Your task to perform on an android device: What's the latest news in astrophysics? Image 0: 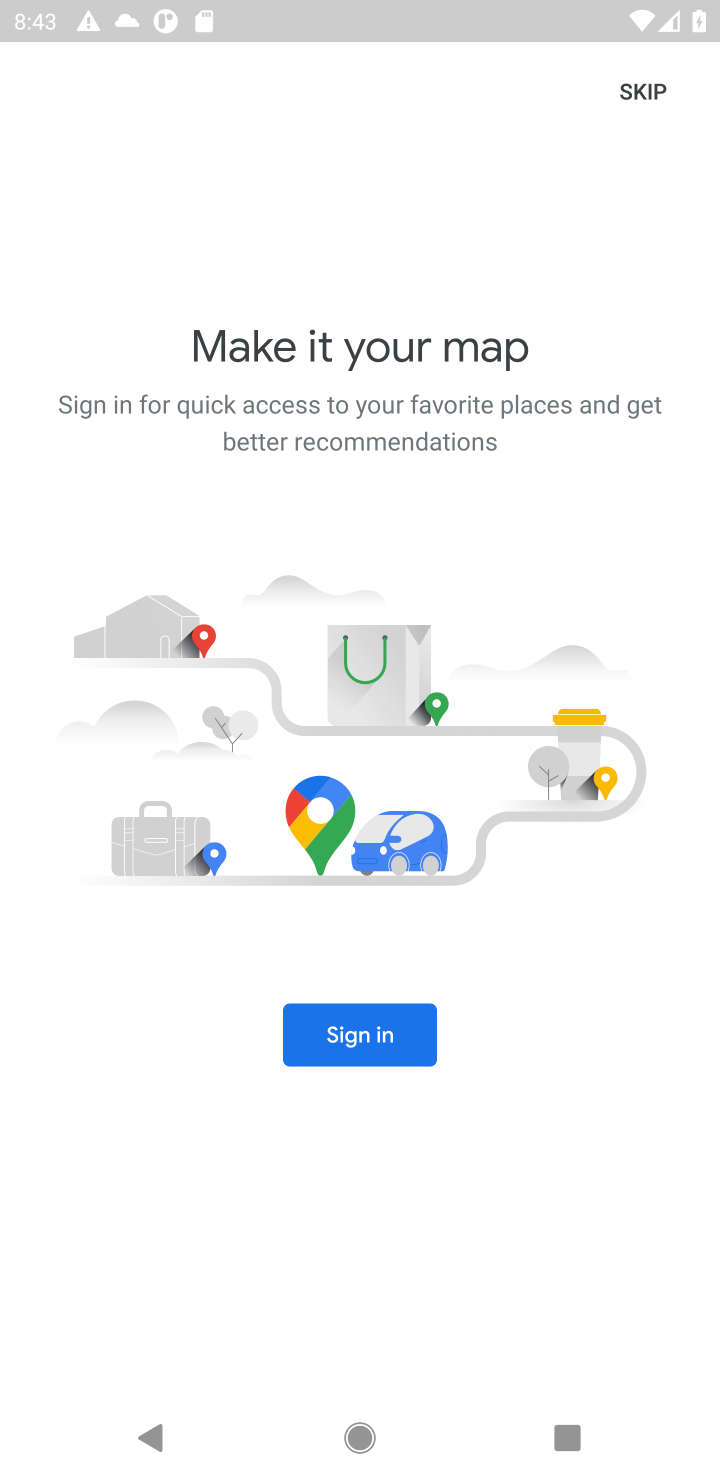
Step 0: press home button
Your task to perform on an android device: What's the latest news in astrophysics? Image 1: 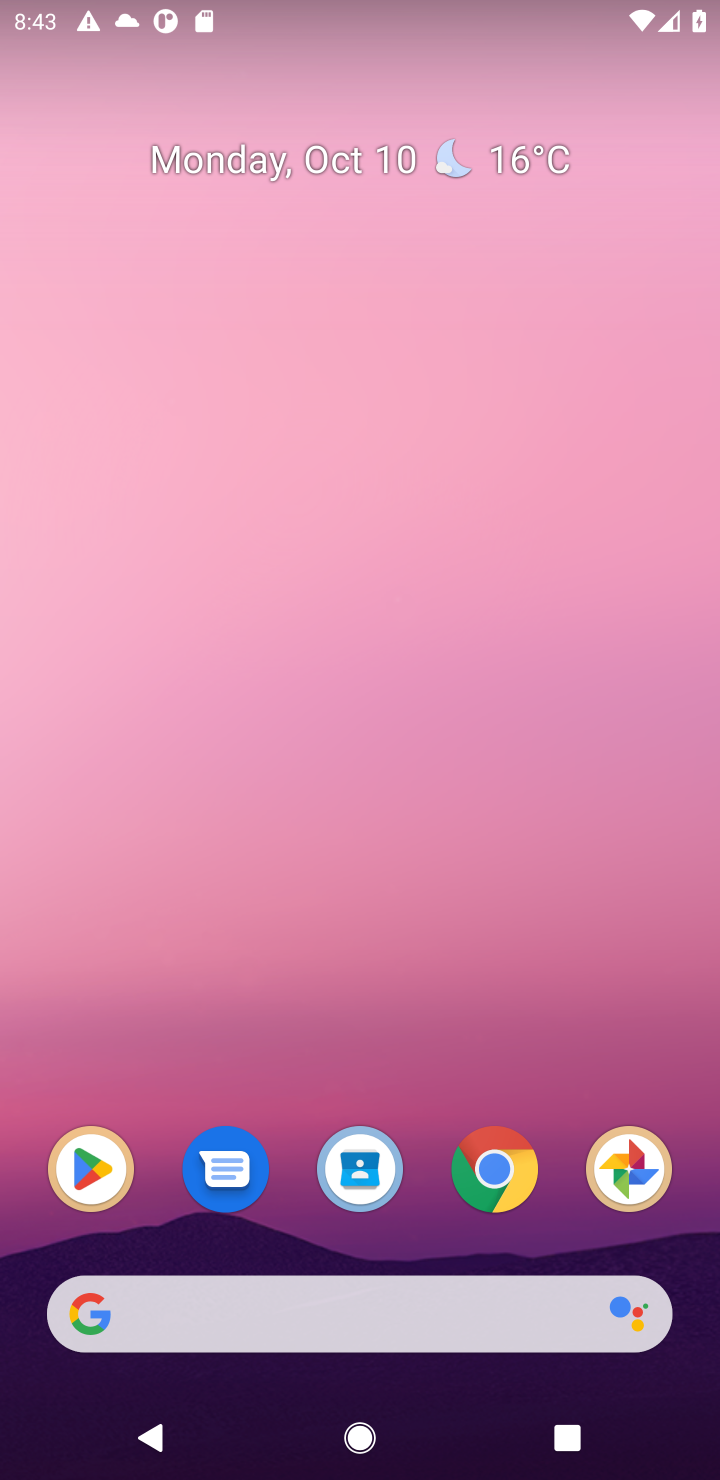
Step 1: click (489, 1205)
Your task to perform on an android device: What's the latest news in astrophysics? Image 2: 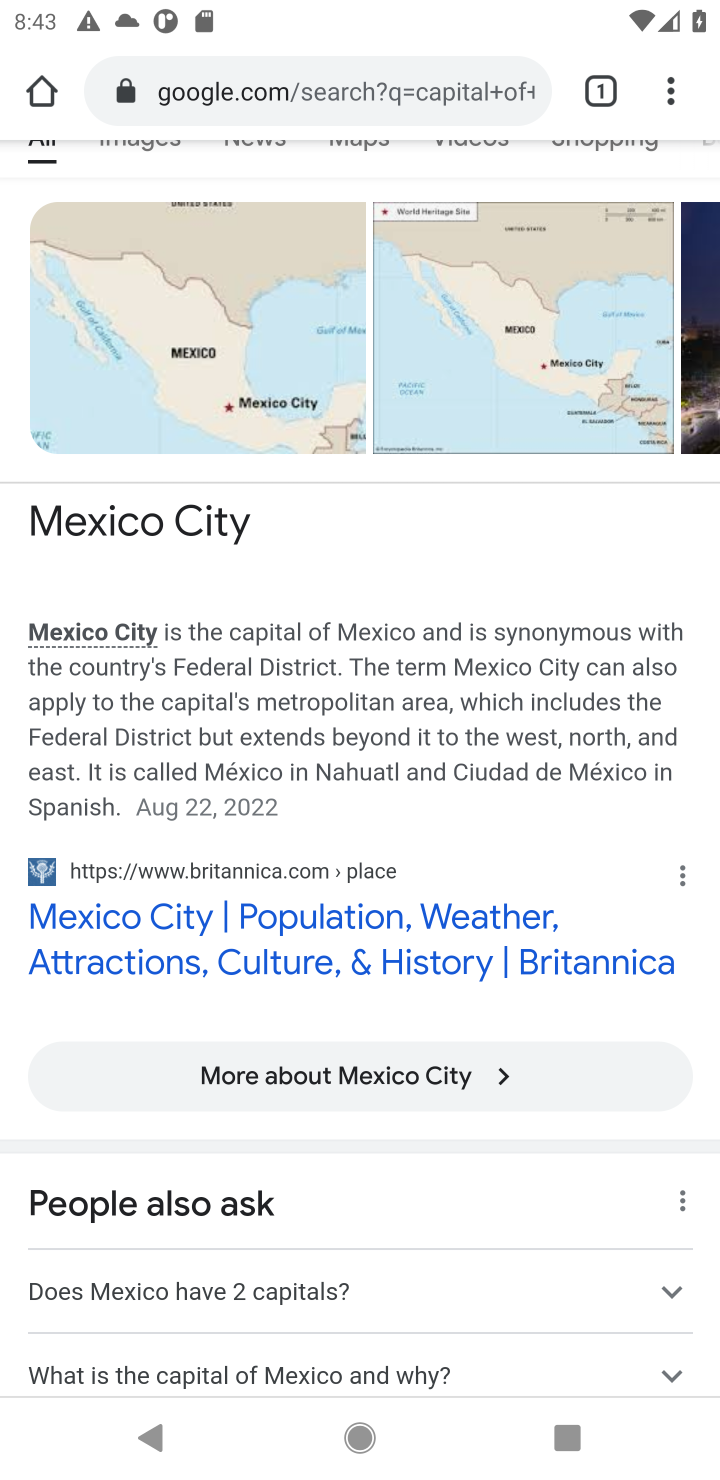
Step 2: click (312, 91)
Your task to perform on an android device: What's the latest news in astrophysics? Image 3: 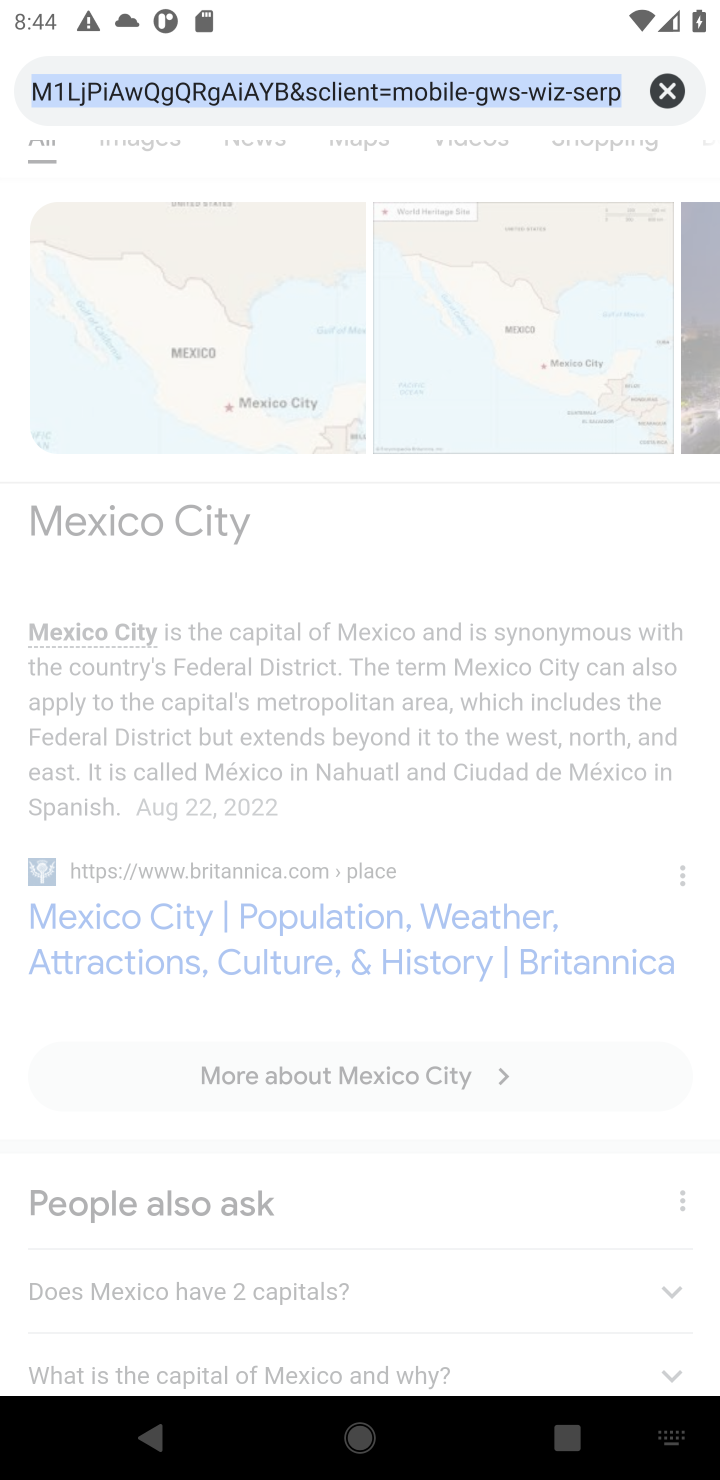
Step 3: type "astrophysics"
Your task to perform on an android device: What's the latest news in astrophysics? Image 4: 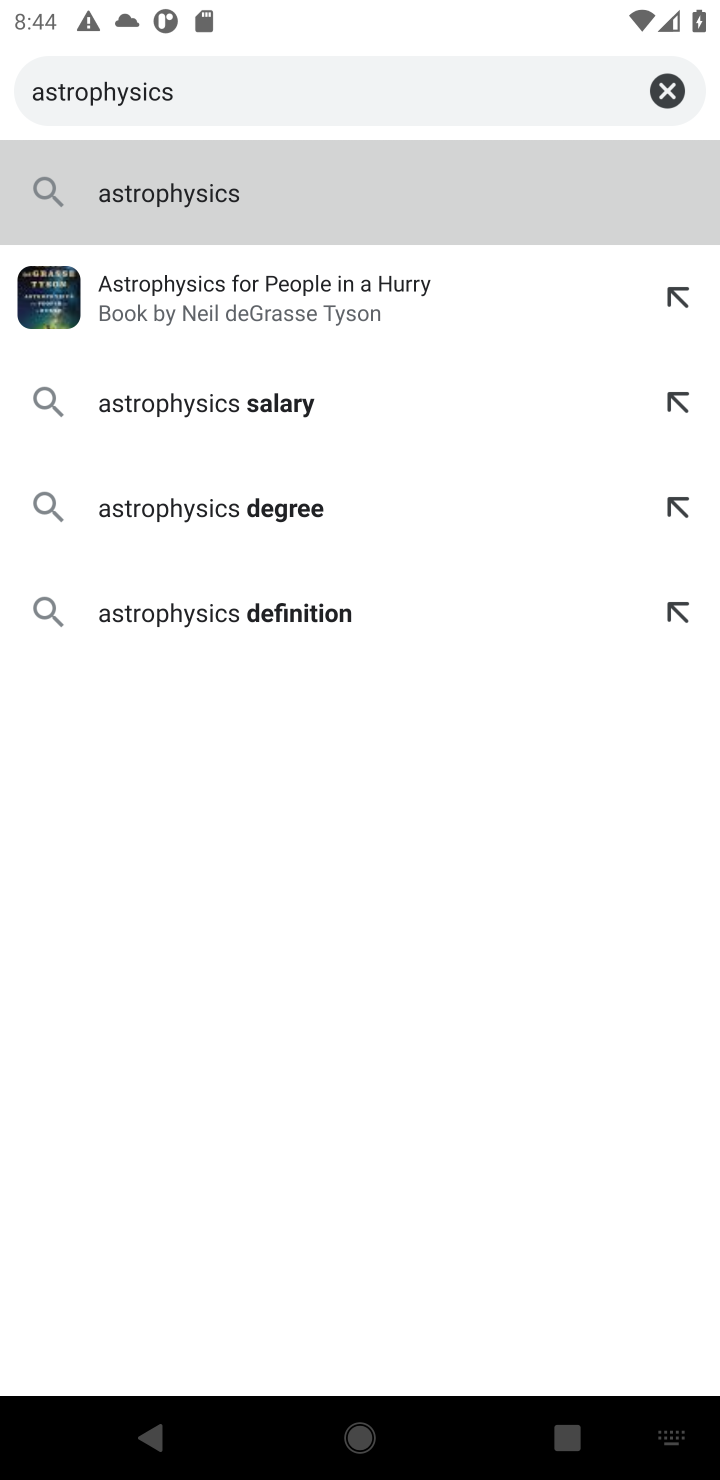
Step 4: click (275, 199)
Your task to perform on an android device: What's the latest news in astrophysics? Image 5: 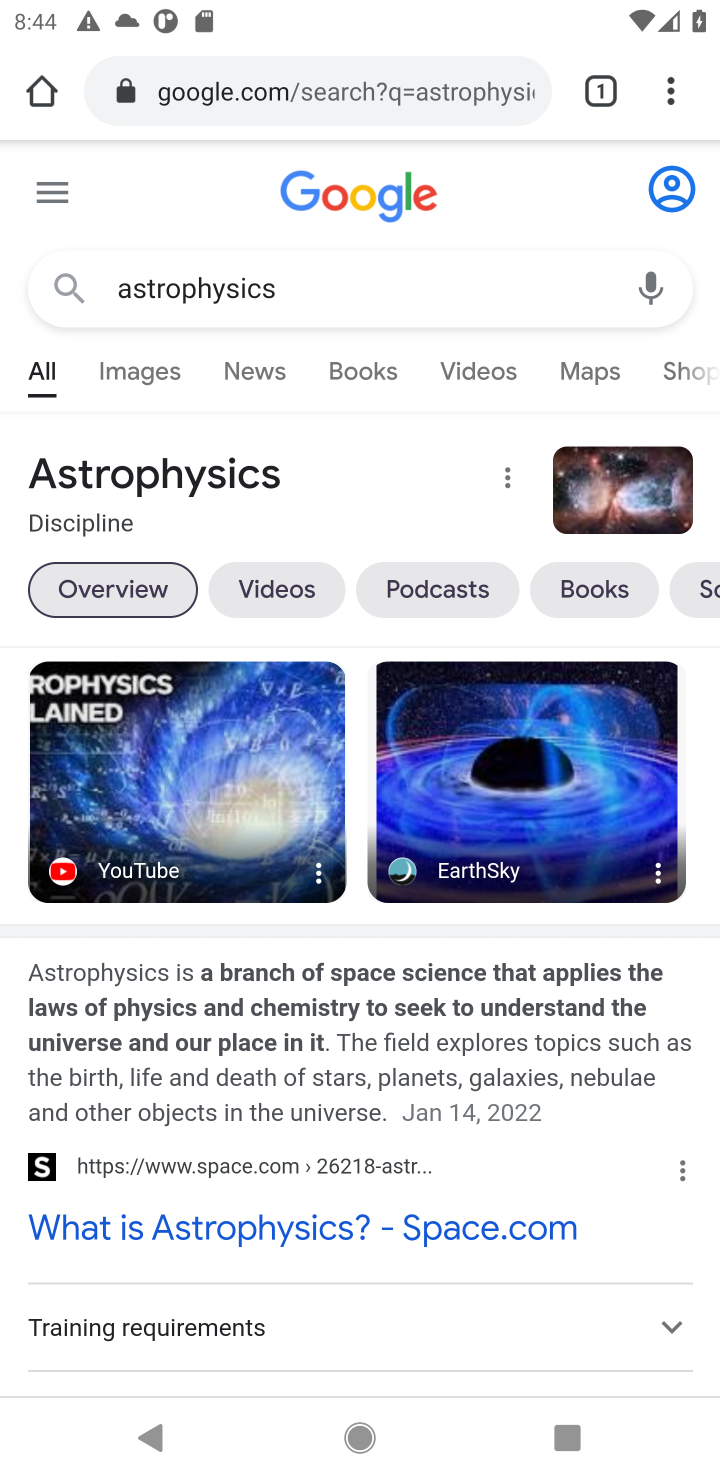
Step 5: click (236, 362)
Your task to perform on an android device: What's the latest news in astrophysics? Image 6: 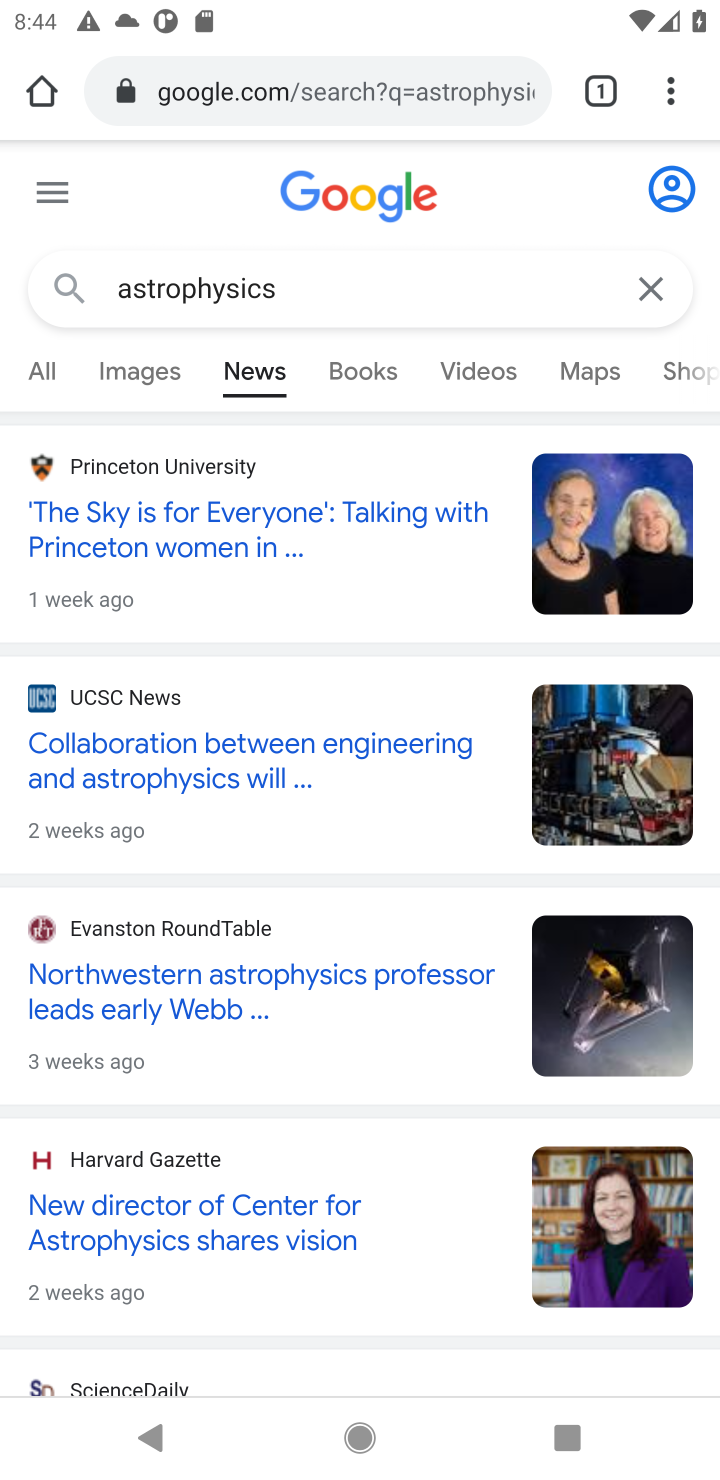
Step 6: task complete